Your task to perform on an android device: Open Maps and search for coffee Image 0: 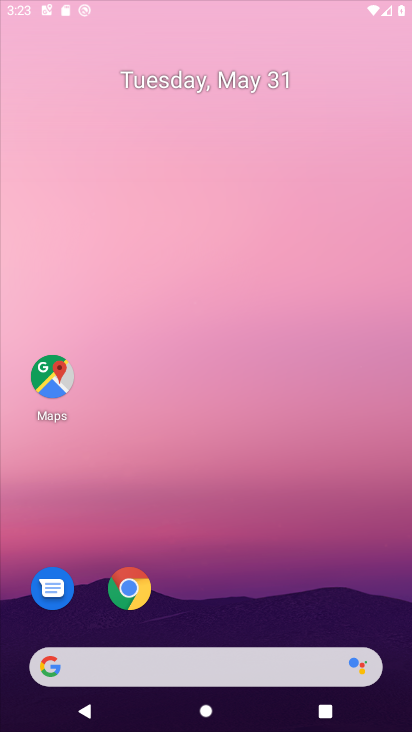
Step 0: drag from (215, 567) to (269, 169)
Your task to perform on an android device: Open Maps and search for coffee Image 1: 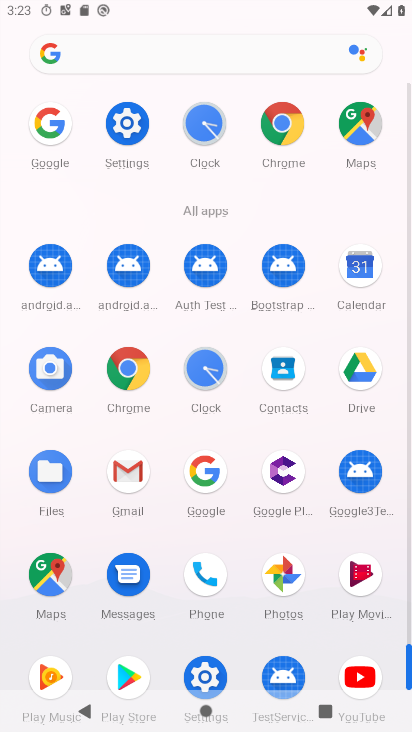
Step 1: click (38, 602)
Your task to perform on an android device: Open Maps and search for coffee Image 2: 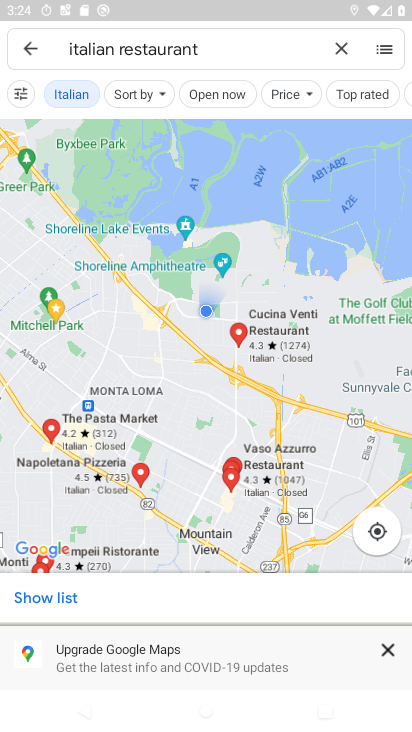
Step 2: click (338, 49)
Your task to perform on an android device: Open Maps and search for coffee Image 3: 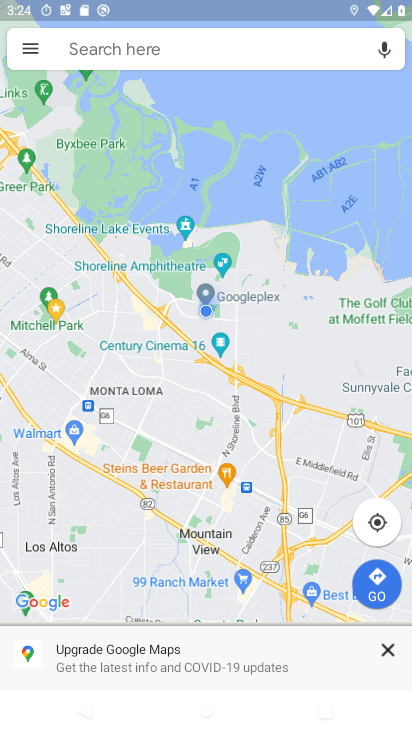
Step 3: click (245, 54)
Your task to perform on an android device: Open Maps and search for coffee Image 4: 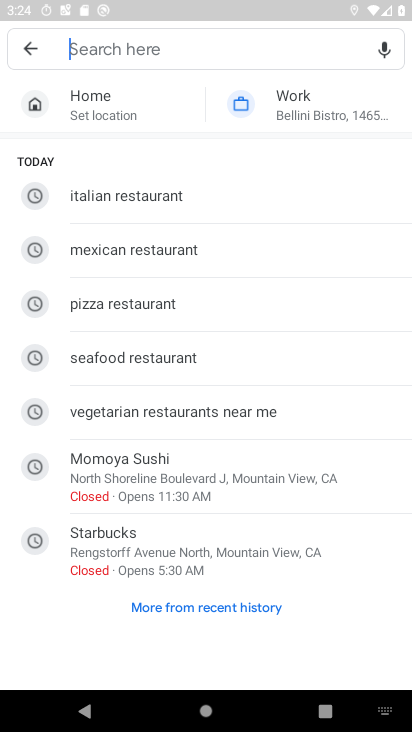
Step 4: click (277, 47)
Your task to perform on an android device: Open Maps and search for coffee Image 5: 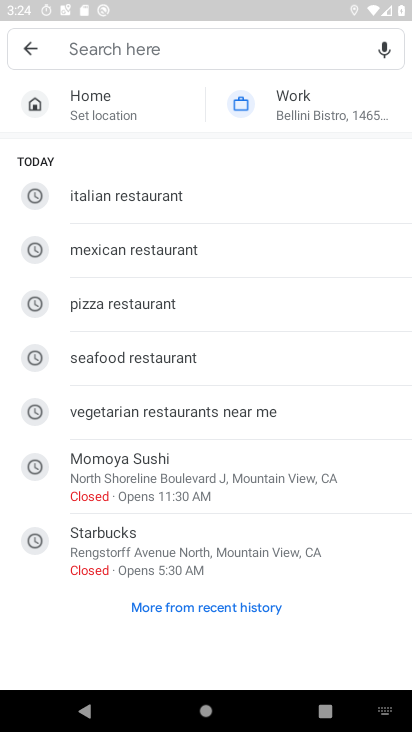
Step 5: type "coffee"
Your task to perform on an android device: Open Maps and search for coffee Image 6: 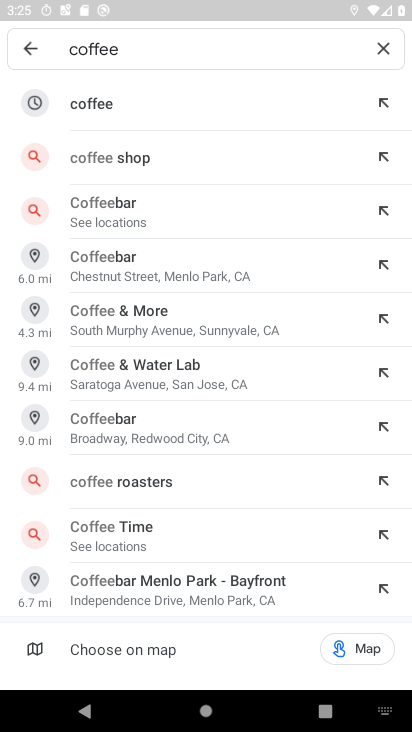
Step 6: click (208, 103)
Your task to perform on an android device: Open Maps and search for coffee Image 7: 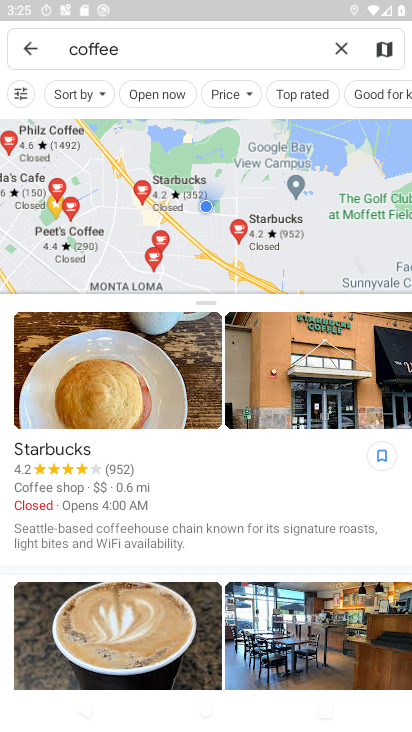
Step 7: task complete